Your task to perform on an android device: Open calendar and show me the fourth week of next month Image 0: 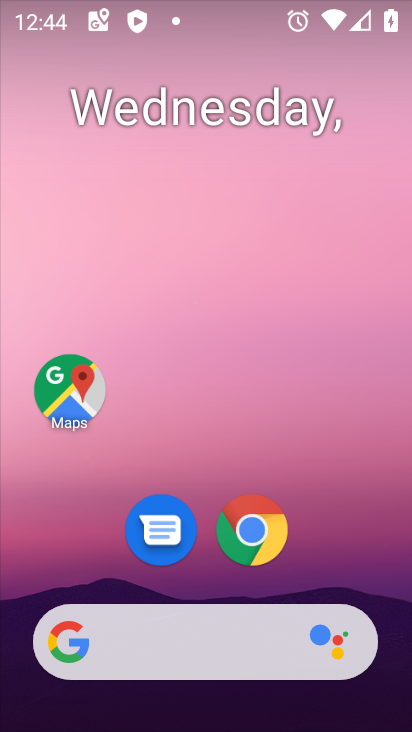
Step 0: task complete